Your task to perform on an android device: Open Google Chrome and click the shortcut for Amazon.com Image 0: 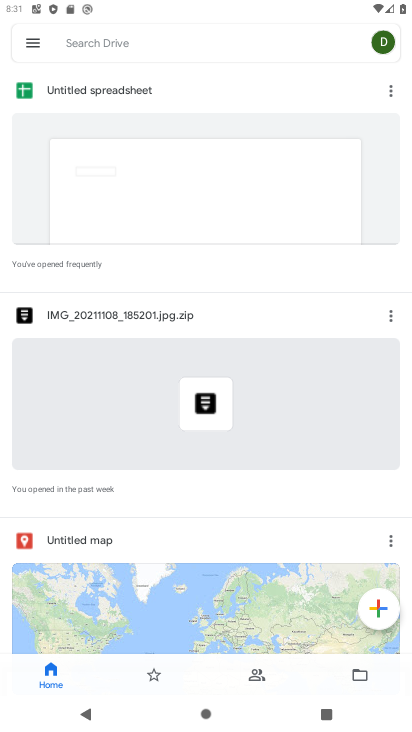
Step 0: press home button
Your task to perform on an android device: Open Google Chrome and click the shortcut for Amazon.com Image 1: 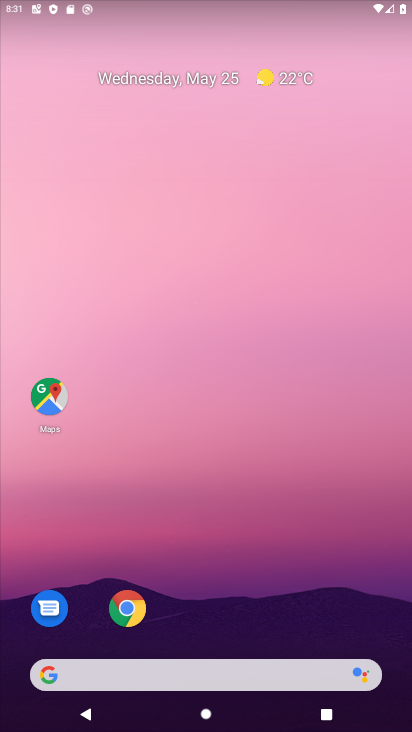
Step 1: click (129, 610)
Your task to perform on an android device: Open Google Chrome and click the shortcut for Amazon.com Image 2: 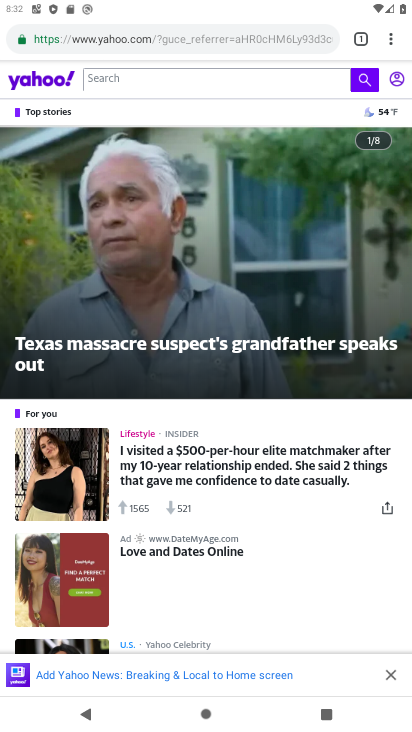
Step 2: click (217, 45)
Your task to perform on an android device: Open Google Chrome and click the shortcut for Amazon.com Image 3: 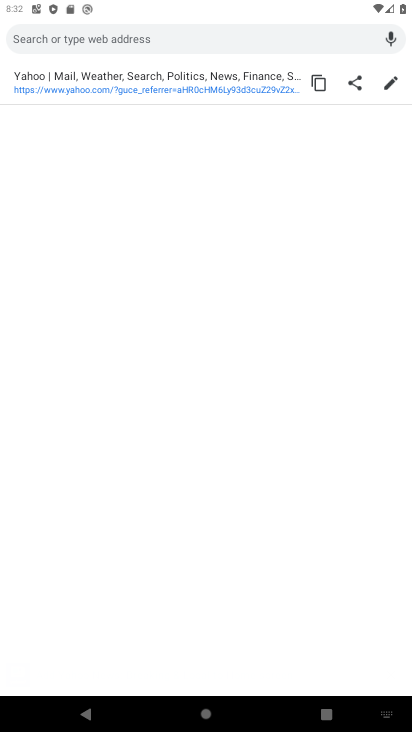
Step 3: type "Amazon.com"
Your task to perform on an android device: Open Google Chrome and click the shortcut for Amazon.com Image 4: 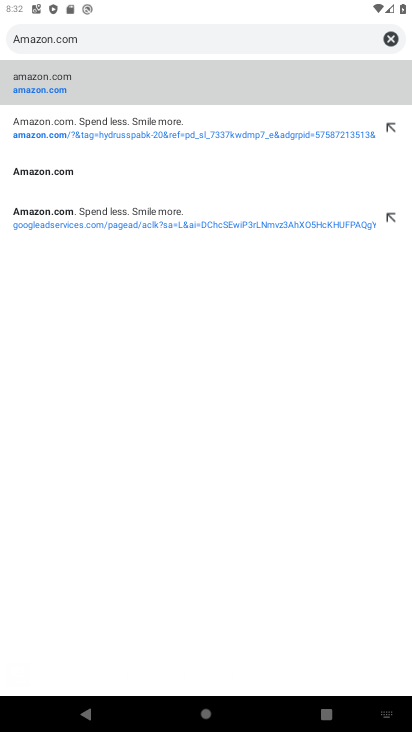
Step 4: click (60, 181)
Your task to perform on an android device: Open Google Chrome and click the shortcut for Amazon.com Image 5: 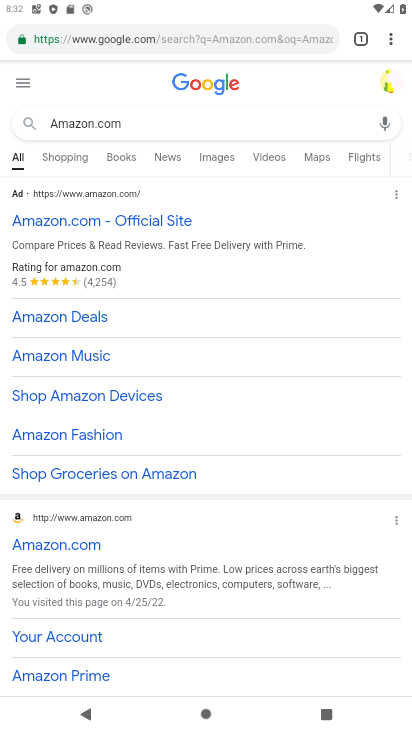
Step 5: click (76, 538)
Your task to perform on an android device: Open Google Chrome and click the shortcut for Amazon.com Image 6: 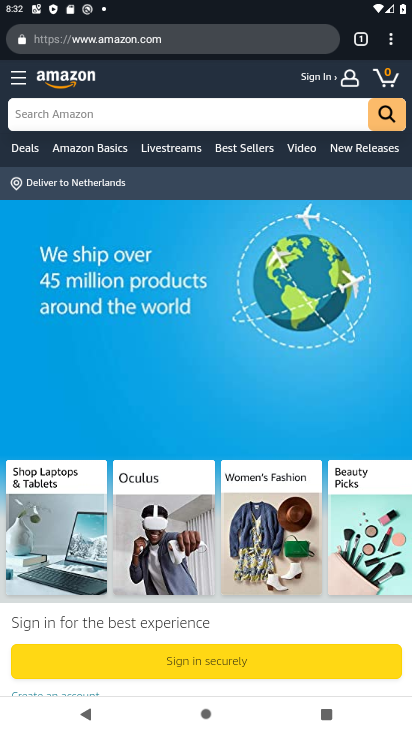
Step 6: click (392, 41)
Your task to perform on an android device: Open Google Chrome and click the shortcut for Amazon.com Image 7: 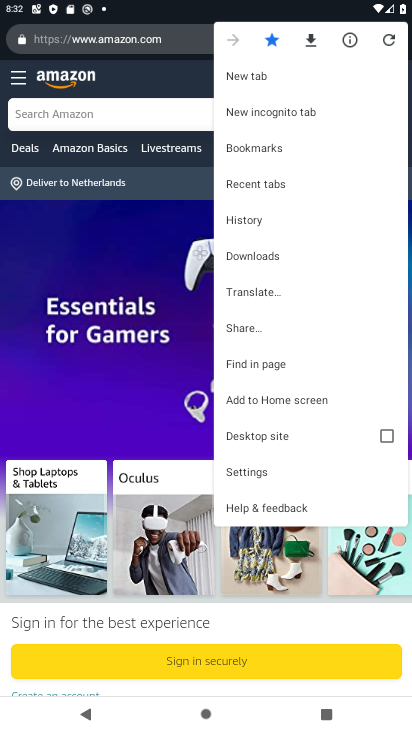
Step 7: click (276, 403)
Your task to perform on an android device: Open Google Chrome and click the shortcut for Amazon.com Image 8: 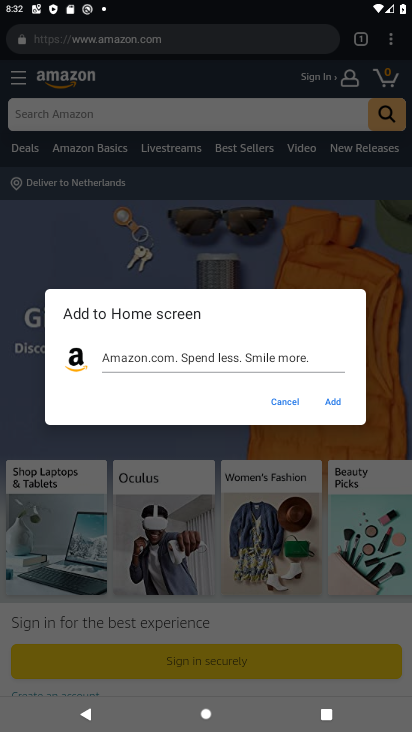
Step 8: click (335, 398)
Your task to perform on an android device: Open Google Chrome and click the shortcut for Amazon.com Image 9: 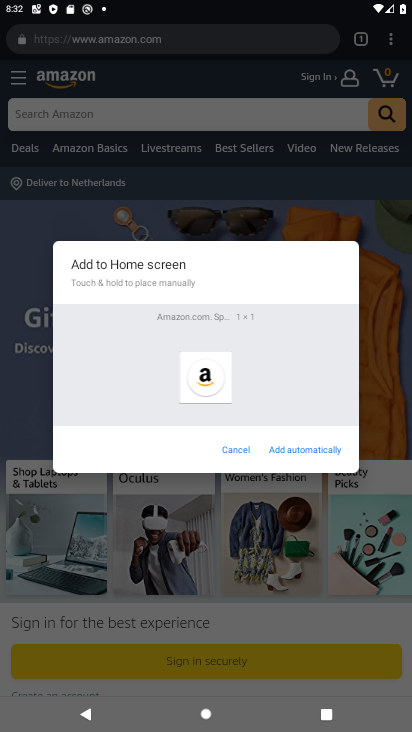
Step 9: click (324, 450)
Your task to perform on an android device: Open Google Chrome and click the shortcut for Amazon.com Image 10: 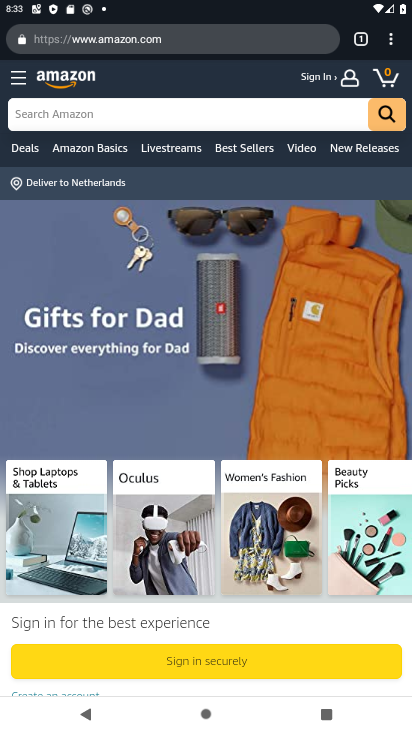
Step 10: task complete